Your task to perform on an android device: turn off priority inbox in the gmail app Image 0: 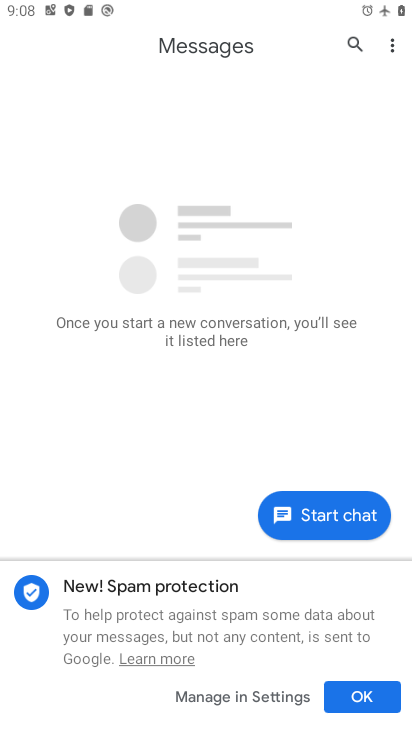
Step 0: press home button
Your task to perform on an android device: turn off priority inbox in the gmail app Image 1: 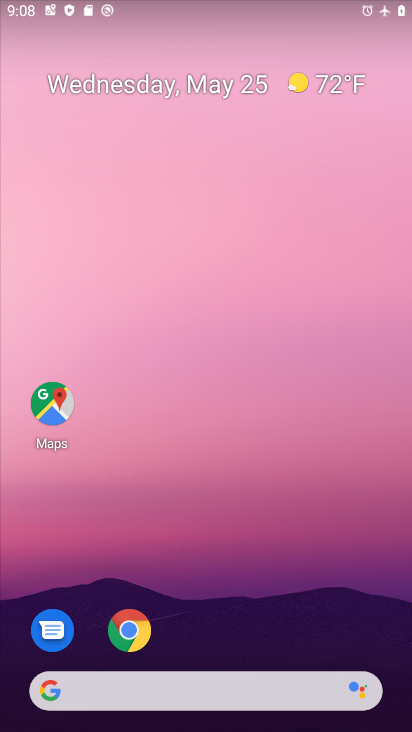
Step 1: drag from (220, 640) to (181, 153)
Your task to perform on an android device: turn off priority inbox in the gmail app Image 2: 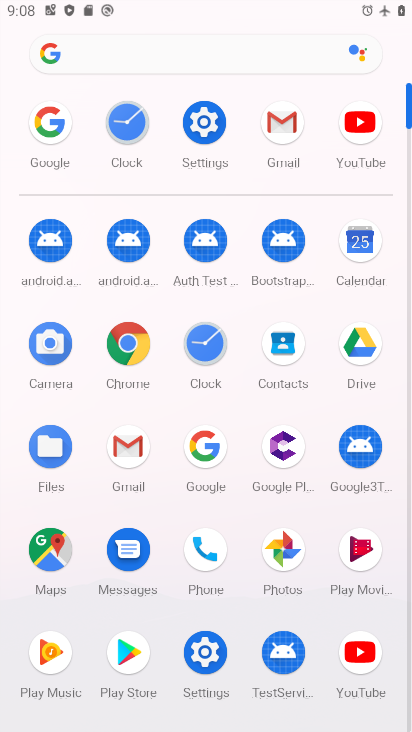
Step 2: click (291, 134)
Your task to perform on an android device: turn off priority inbox in the gmail app Image 3: 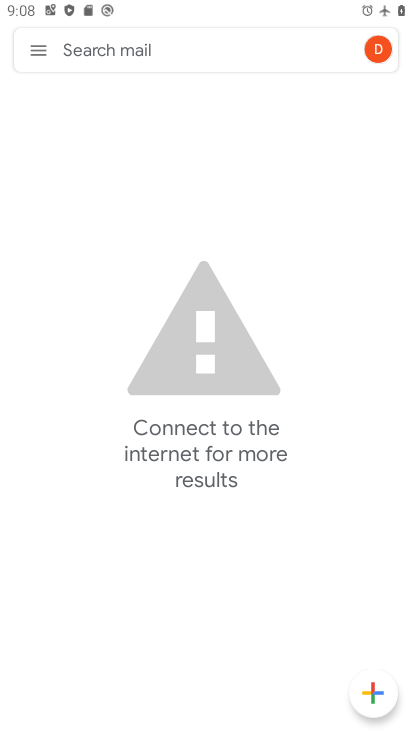
Step 3: click (24, 46)
Your task to perform on an android device: turn off priority inbox in the gmail app Image 4: 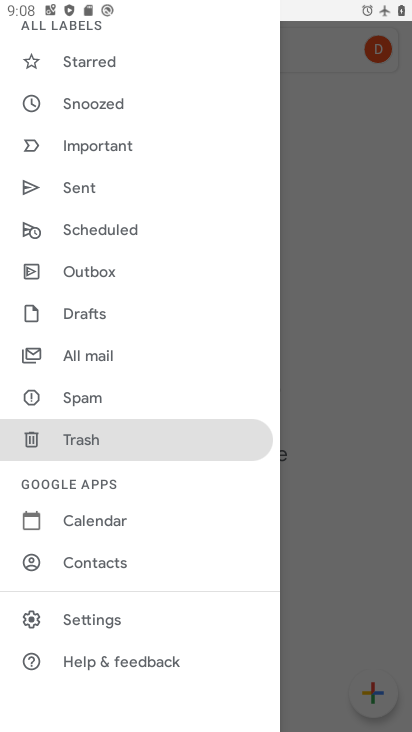
Step 4: click (139, 620)
Your task to perform on an android device: turn off priority inbox in the gmail app Image 5: 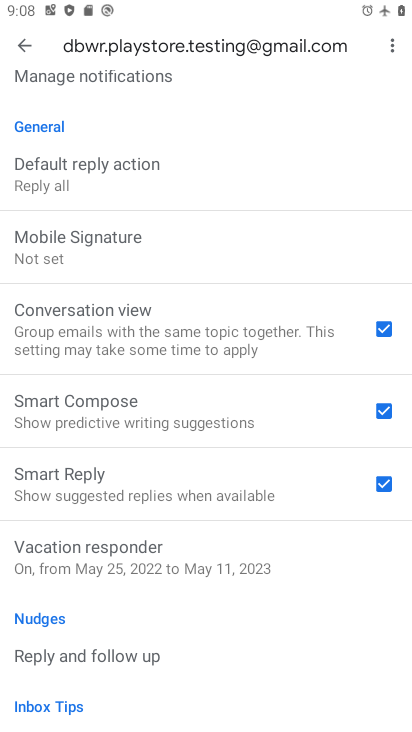
Step 5: drag from (248, 166) to (254, 540)
Your task to perform on an android device: turn off priority inbox in the gmail app Image 6: 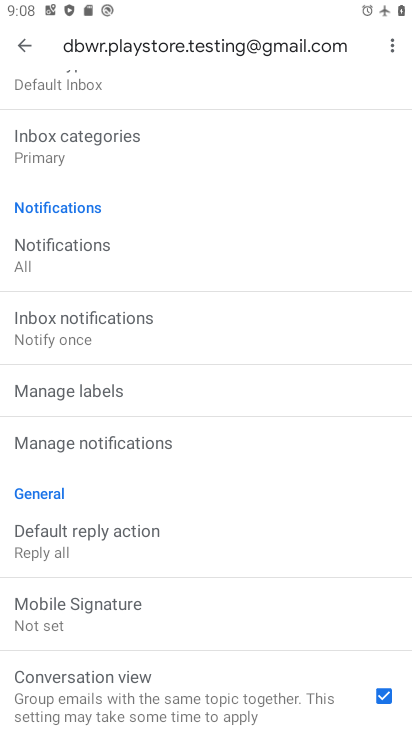
Step 6: drag from (213, 146) to (232, 491)
Your task to perform on an android device: turn off priority inbox in the gmail app Image 7: 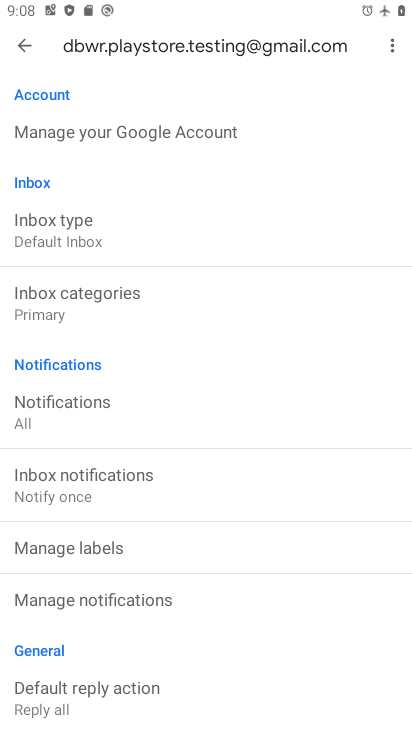
Step 7: click (124, 247)
Your task to perform on an android device: turn off priority inbox in the gmail app Image 8: 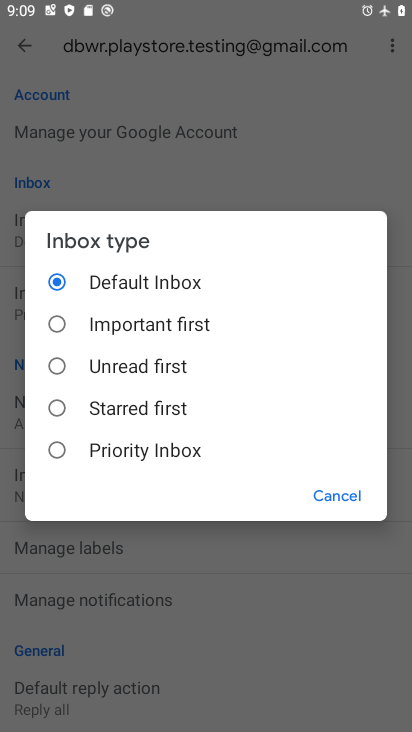
Step 8: task complete